Your task to perform on an android device: Add "macbook pro 15 inch" to the cart on ebay.com Image 0: 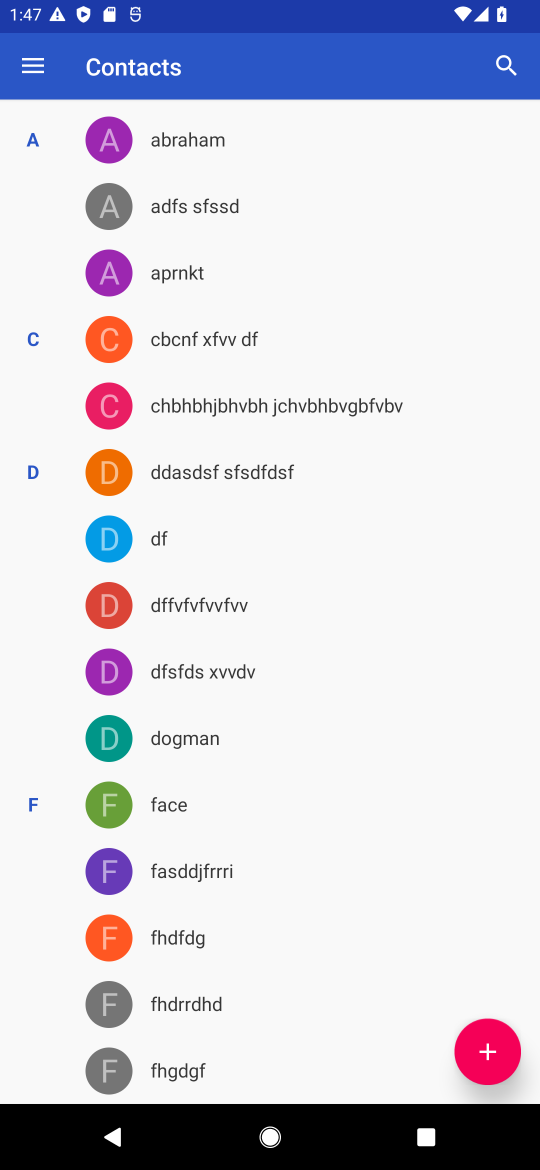
Step 0: press home button
Your task to perform on an android device: Add "macbook pro 15 inch" to the cart on ebay.com Image 1: 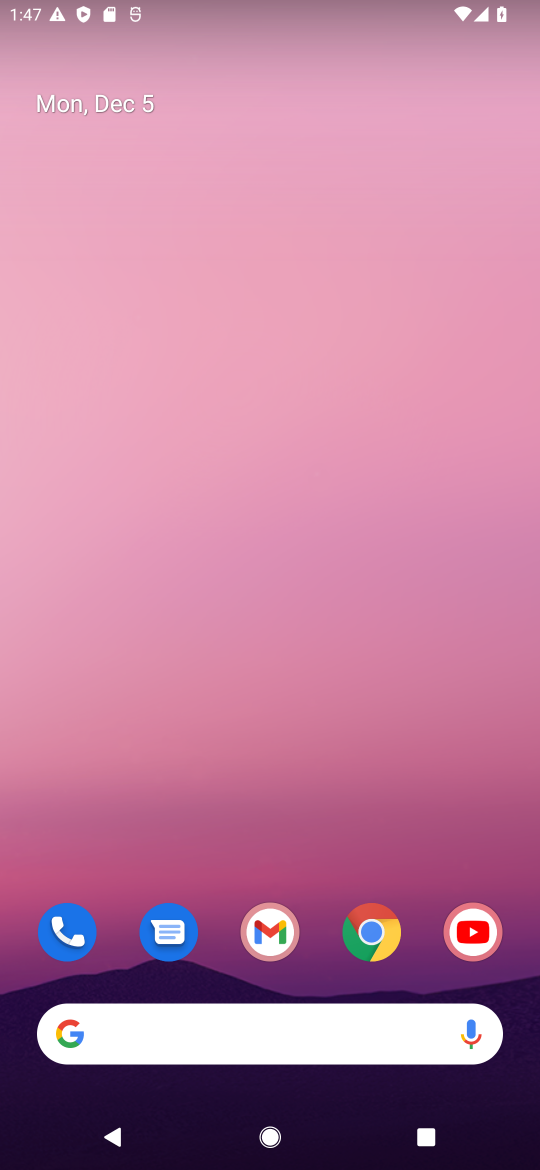
Step 1: click (381, 935)
Your task to perform on an android device: Add "macbook pro 15 inch" to the cart on ebay.com Image 2: 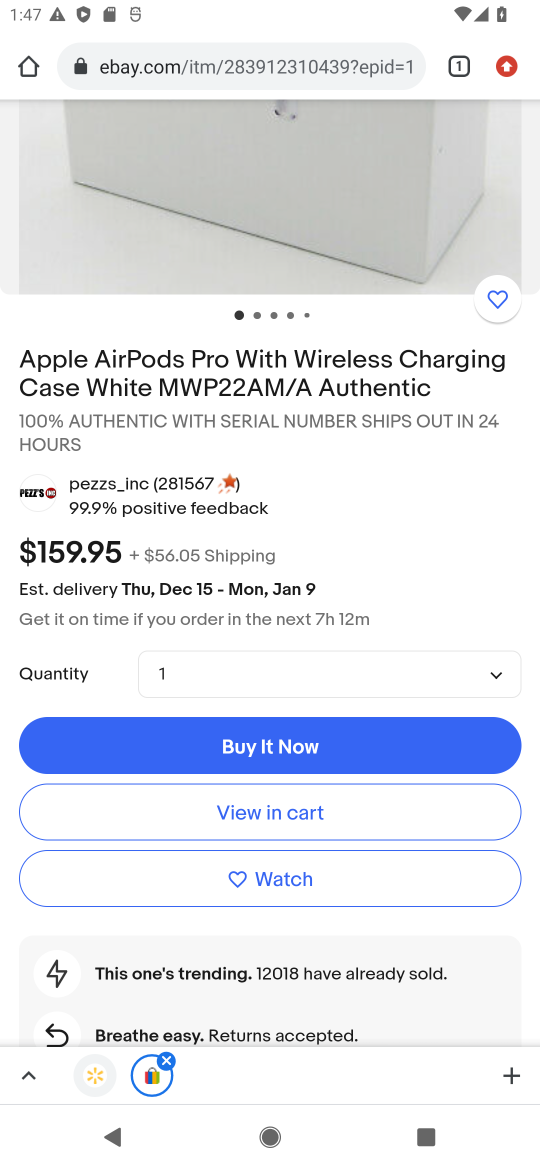
Step 2: click (137, 61)
Your task to perform on an android device: Add "macbook pro 15 inch" to the cart on ebay.com Image 3: 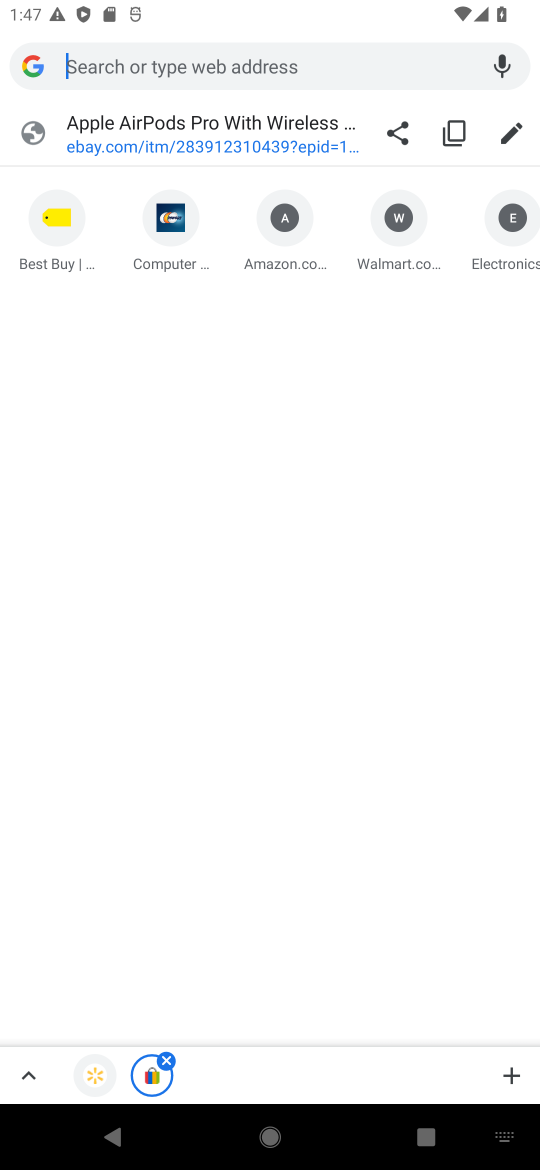
Step 3: type "ebay"
Your task to perform on an android device: Add "macbook pro 15 inch" to the cart on ebay.com Image 4: 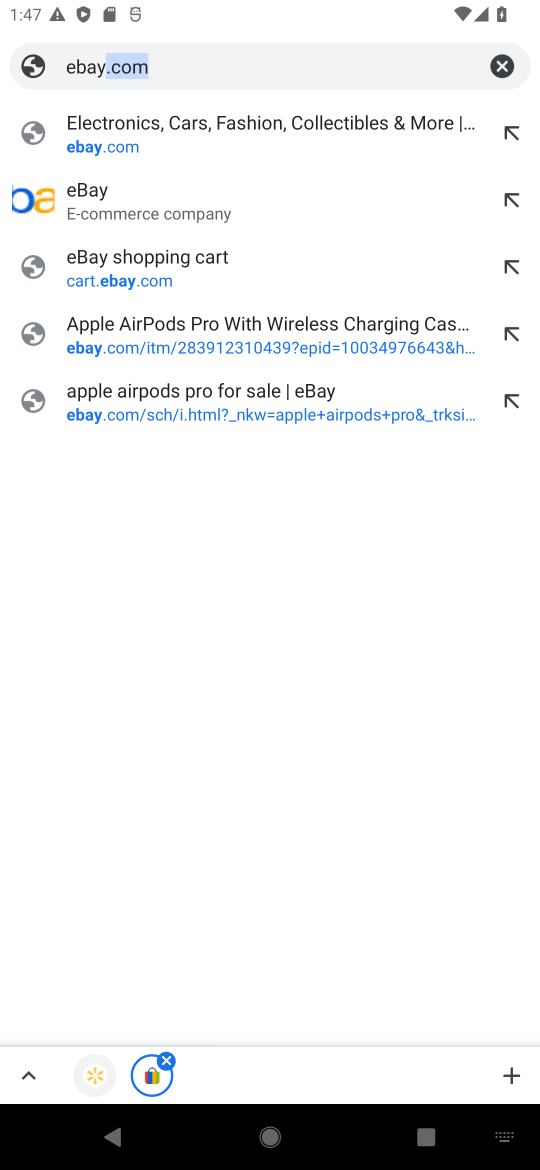
Step 4: click (179, 135)
Your task to perform on an android device: Add "macbook pro 15 inch" to the cart on ebay.com Image 5: 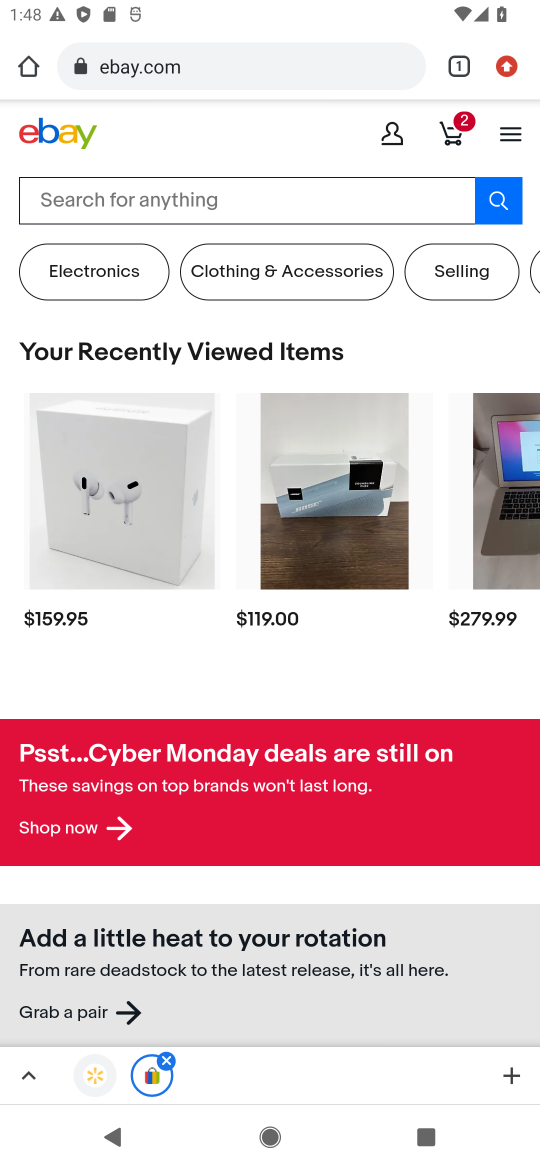
Step 5: click (371, 189)
Your task to perform on an android device: Add "macbook pro 15 inch" to the cart on ebay.com Image 6: 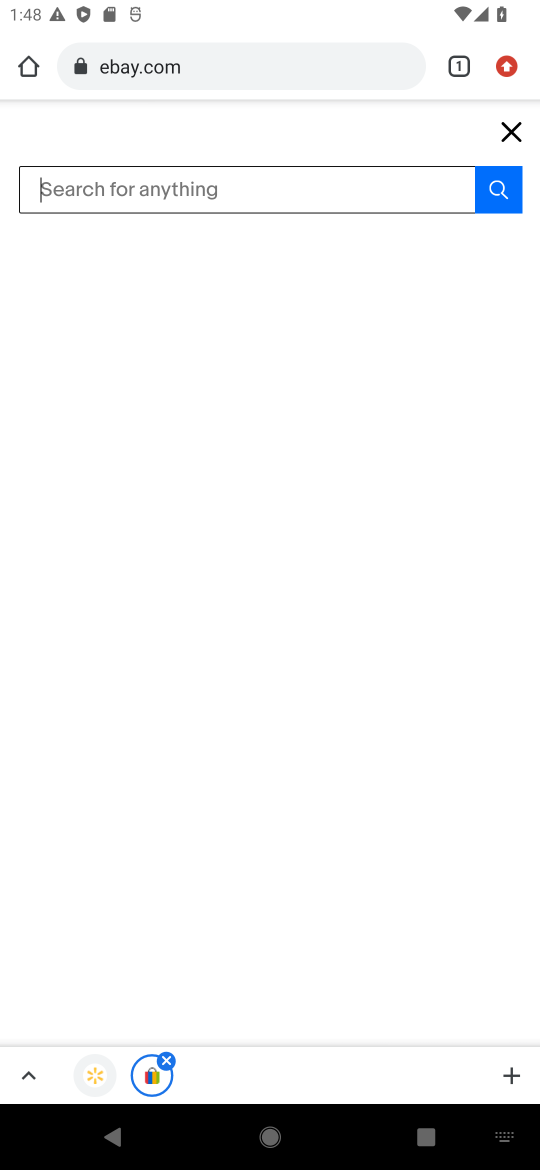
Step 6: type "macbook pro 15 inch"
Your task to perform on an android device: Add "macbook pro 15 inch" to the cart on ebay.com Image 7: 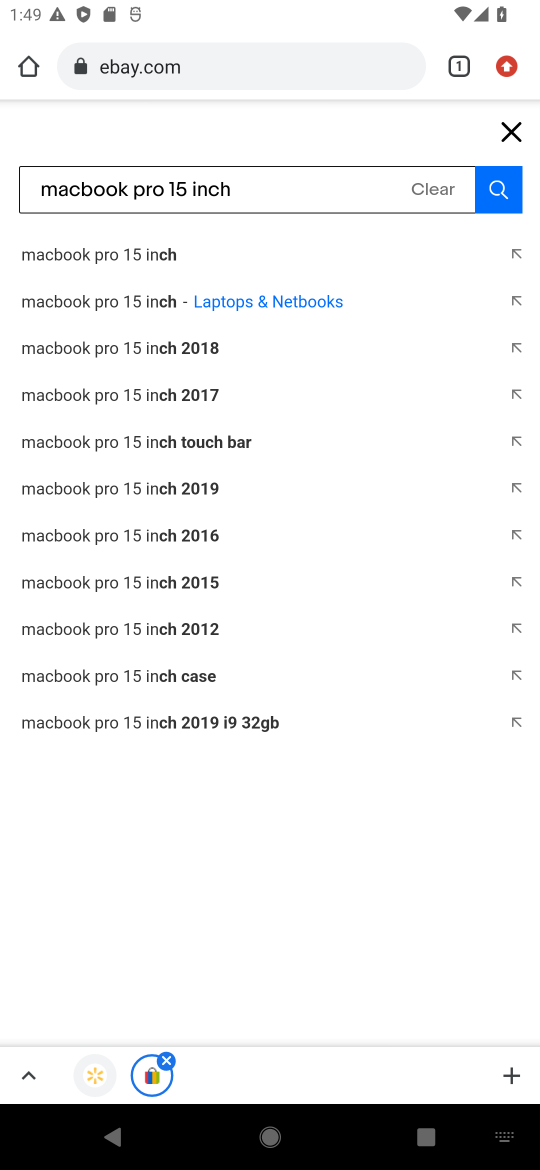
Step 7: click (162, 258)
Your task to perform on an android device: Add "macbook pro 15 inch" to the cart on ebay.com Image 8: 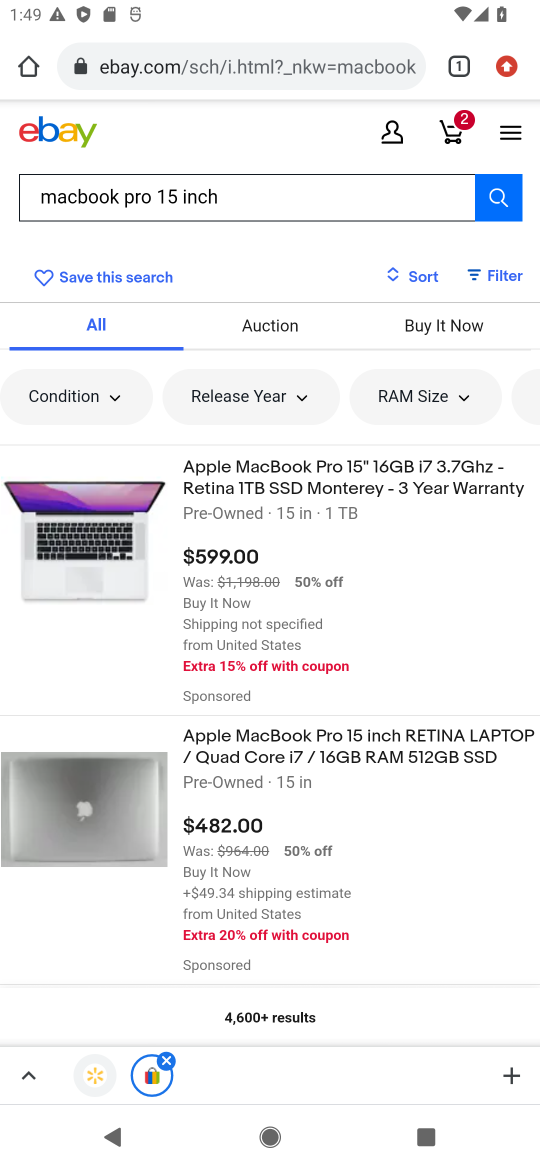
Step 8: click (417, 511)
Your task to perform on an android device: Add "macbook pro 15 inch" to the cart on ebay.com Image 9: 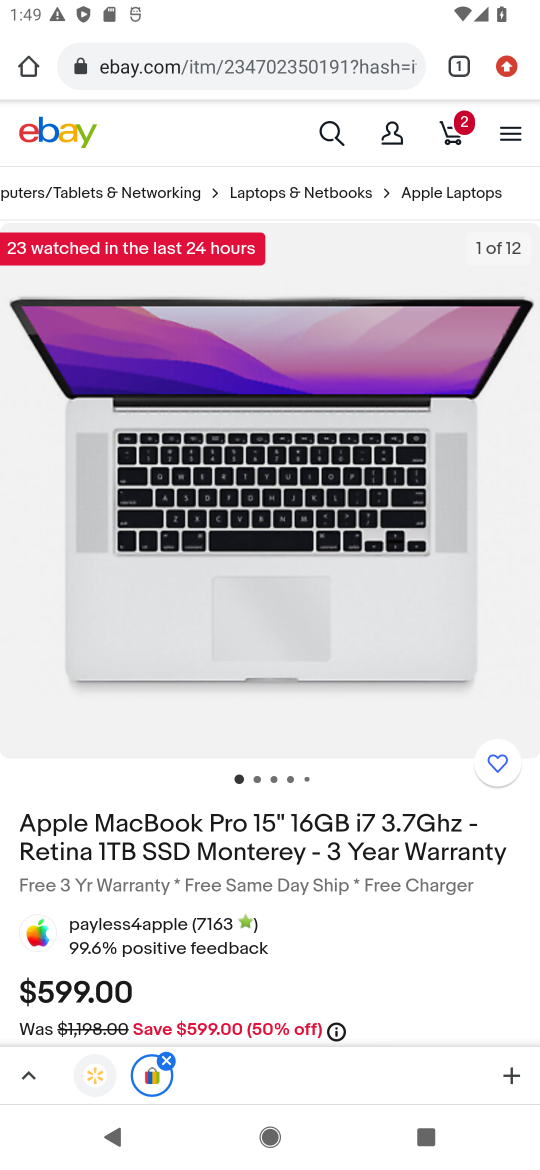
Step 9: drag from (422, 947) to (324, 352)
Your task to perform on an android device: Add "macbook pro 15 inch" to the cart on ebay.com Image 10: 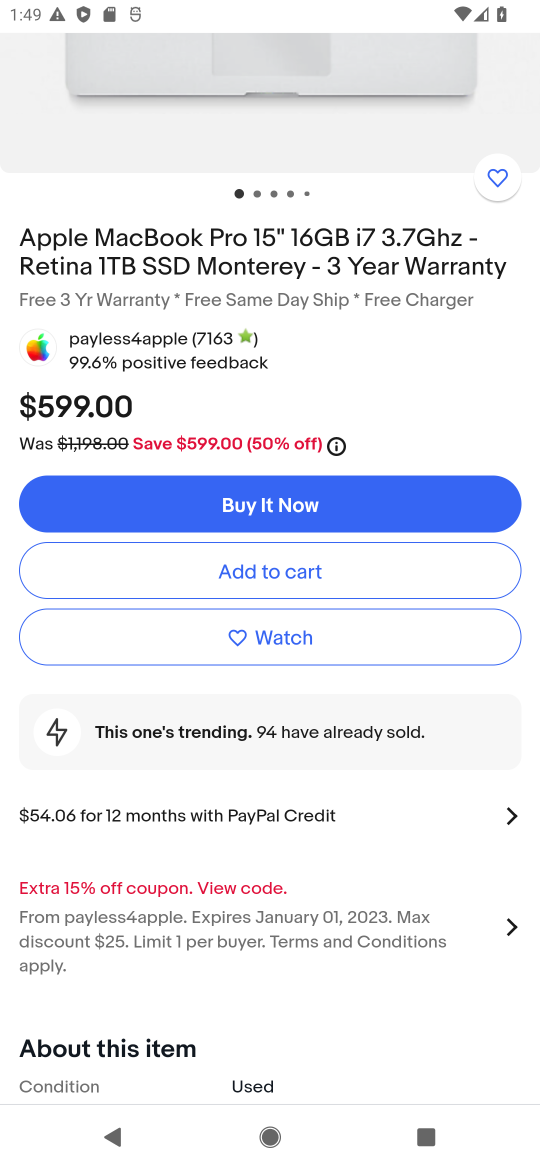
Step 10: click (264, 566)
Your task to perform on an android device: Add "macbook pro 15 inch" to the cart on ebay.com Image 11: 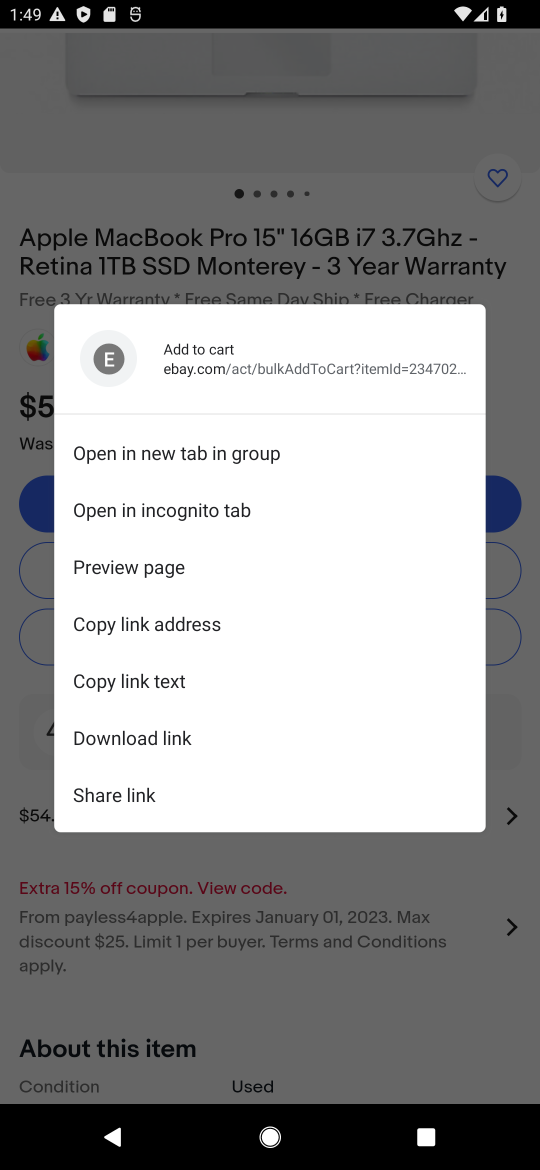
Step 11: click (385, 876)
Your task to perform on an android device: Add "macbook pro 15 inch" to the cart on ebay.com Image 12: 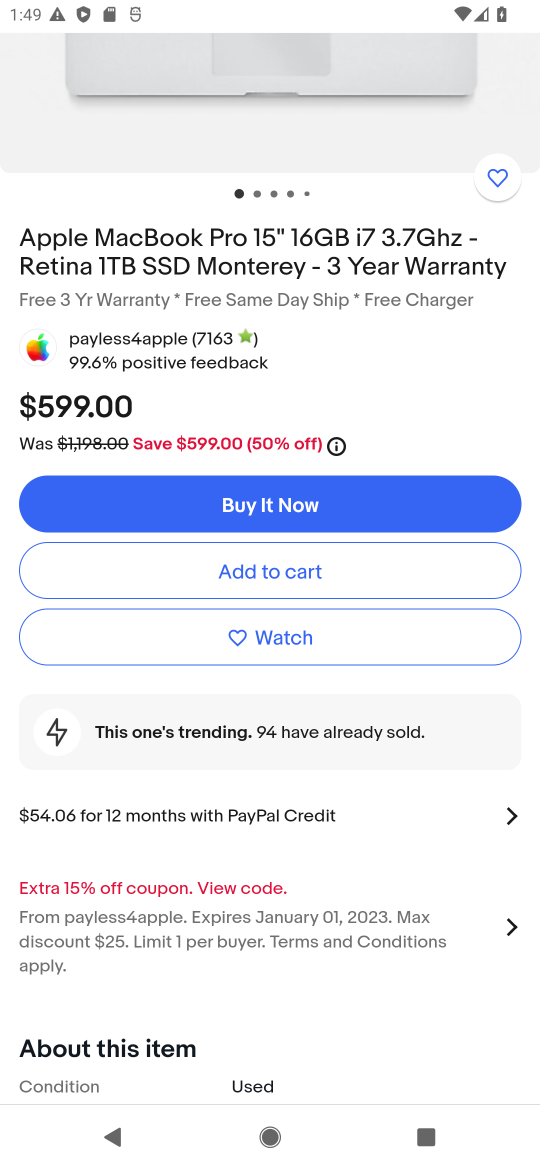
Step 12: click (254, 567)
Your task to perform on an android device: Add "macbook pro 15 inch" to the cart on ebay.com Image 13: 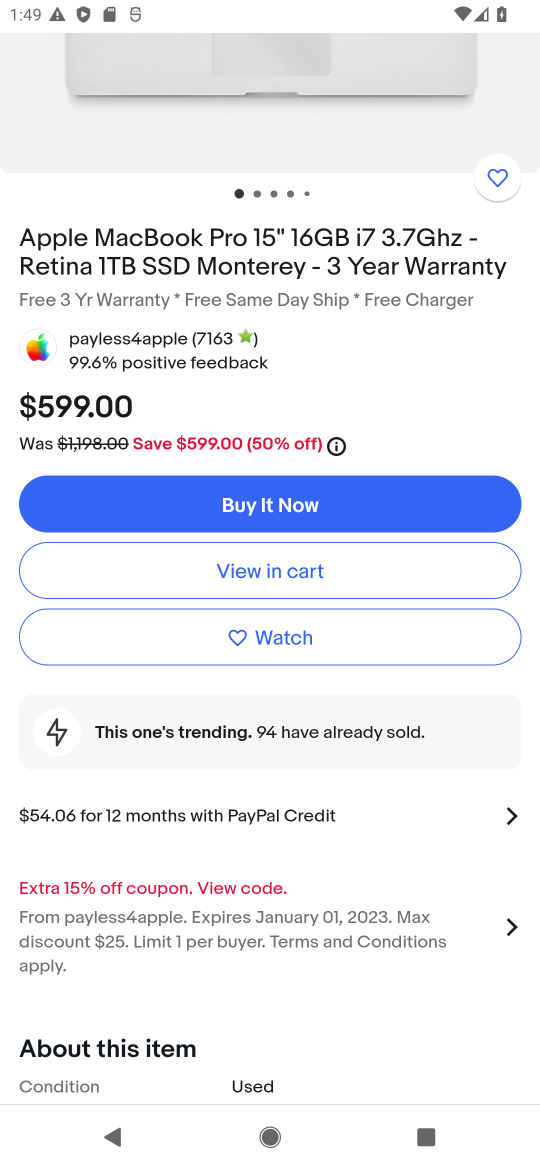
Step 13: task complete